Your task to perform on an android device: Clear the shopping cart on costco.com. Image 0: 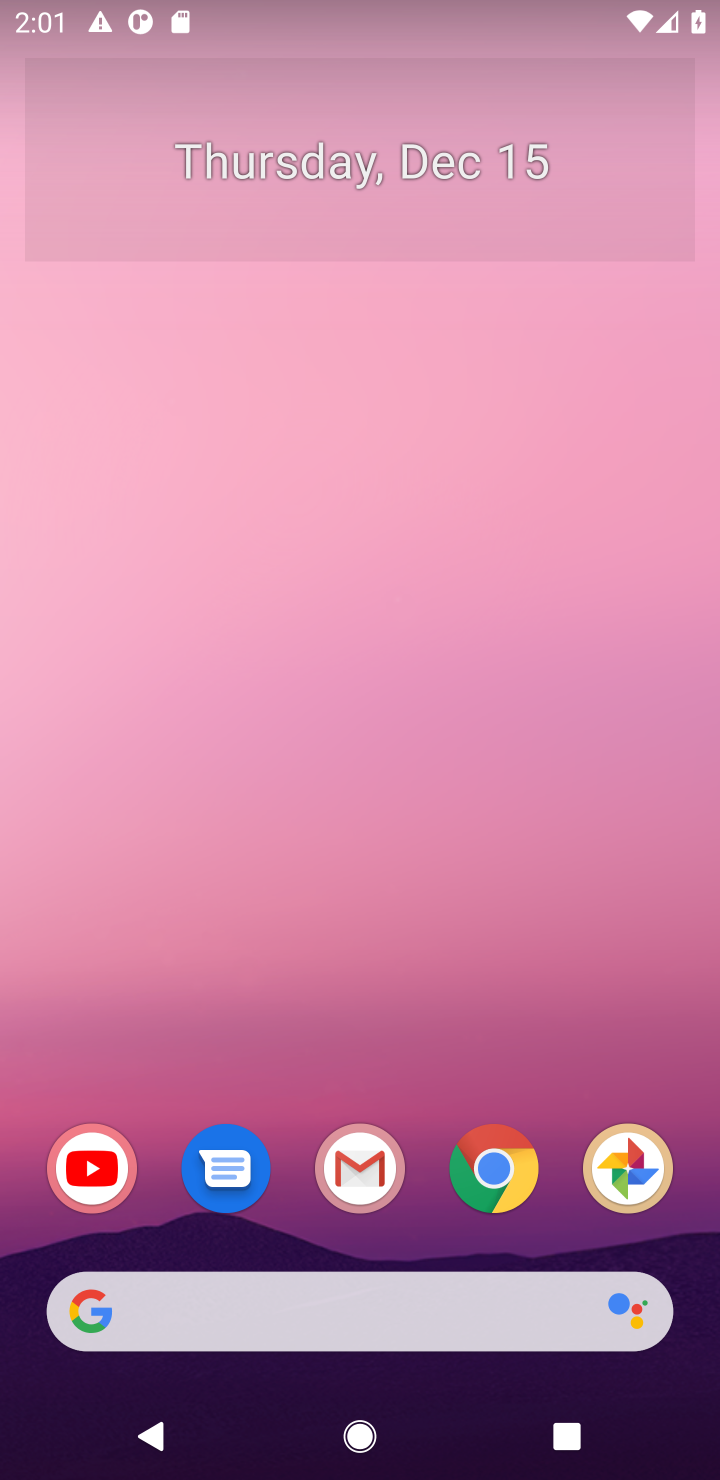
Step 0: click (510, 1160)
Your task to perform on an android device: Clear the shopping cart on costco.com. Image 1: 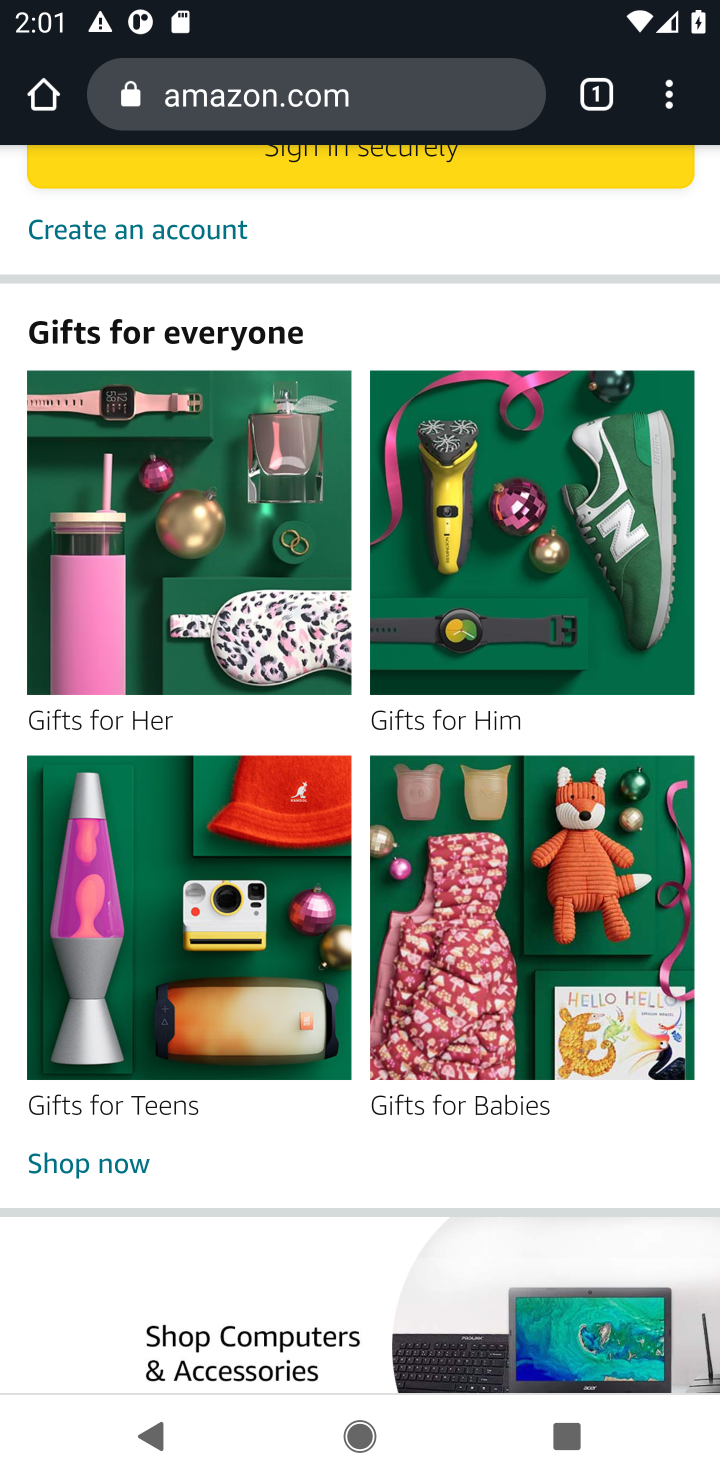
Step 1: click (407, 83)
Your task to perform on an android device: Clear the shopping cart on costco.com. Image 2: 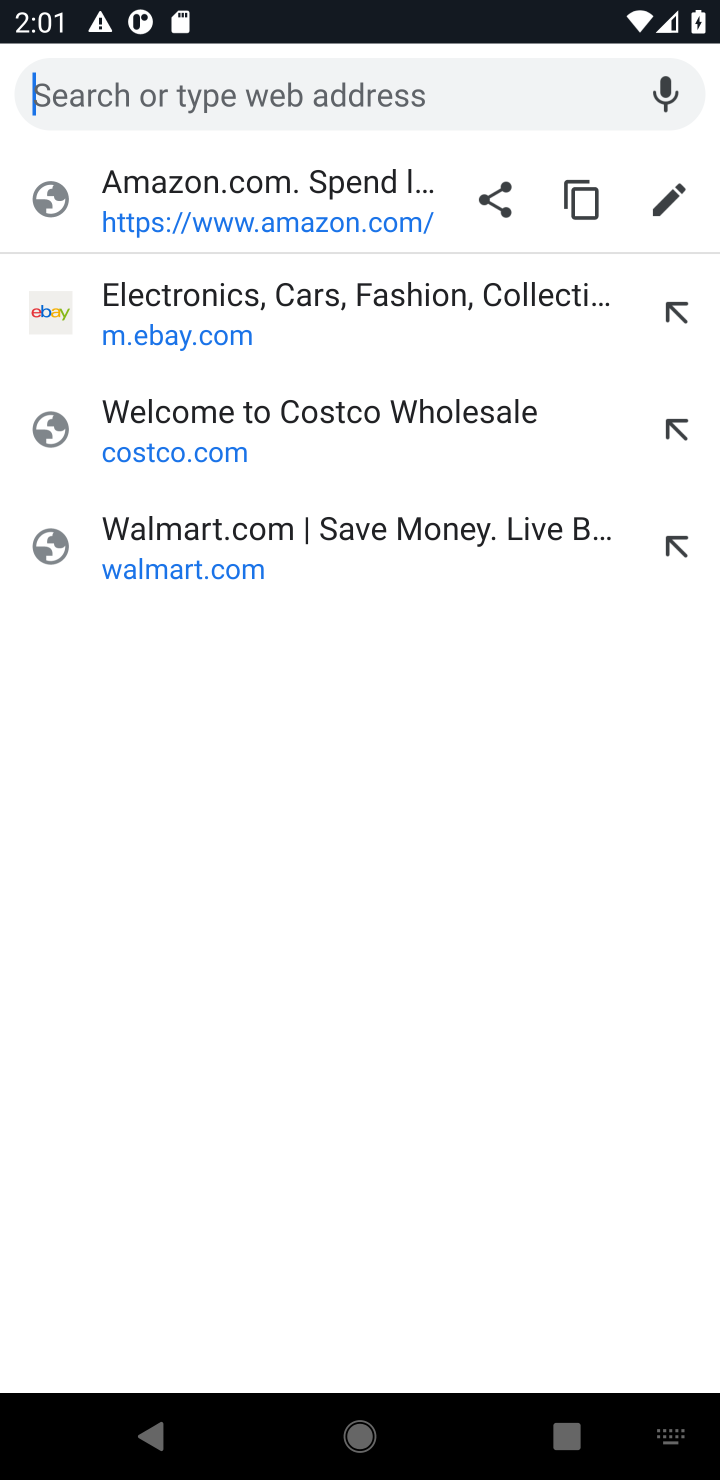
Step 2: click (230, 411)
Your task to perform on an android device: Clear the shopping cart on costco.com. Image 3: 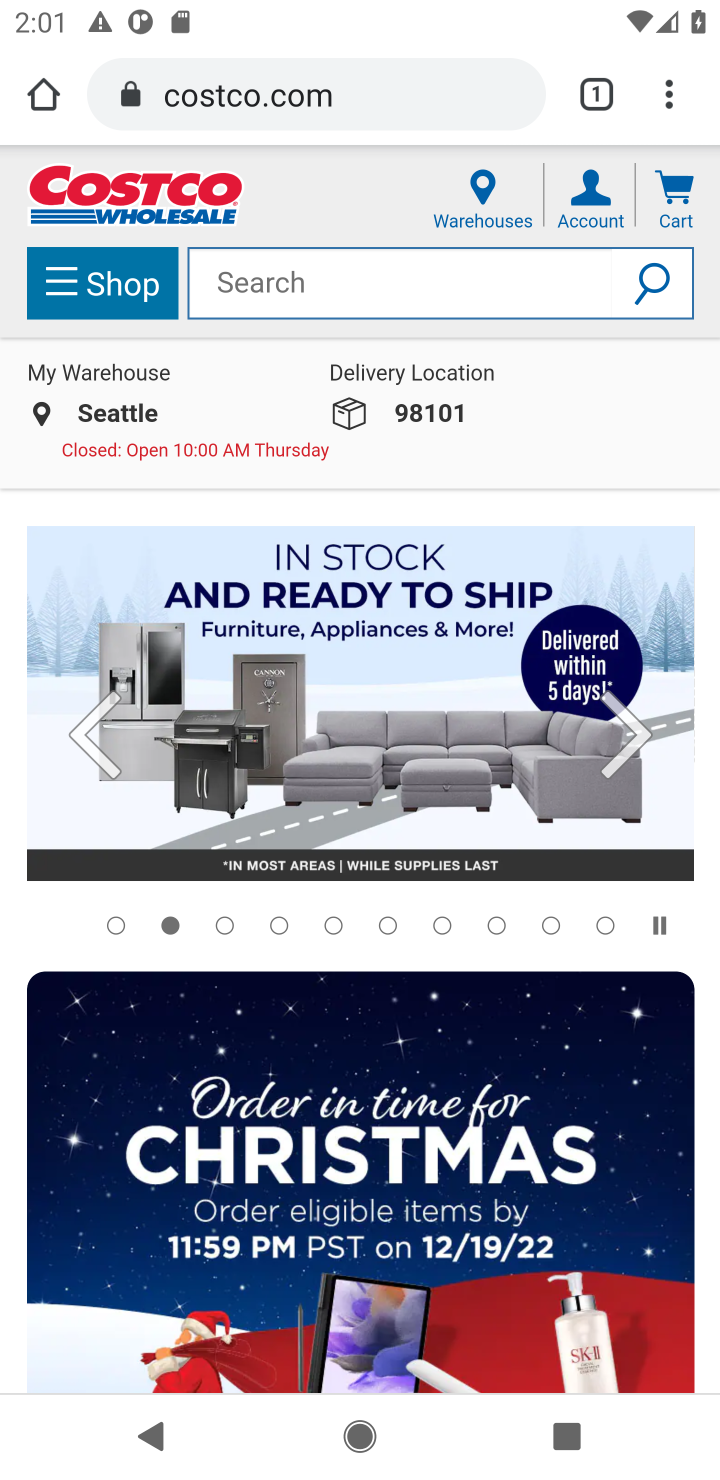
Step 3: click (680, 190)
Your task to perform on an android device: Clear the shopping cart on costco.com. Image 4: 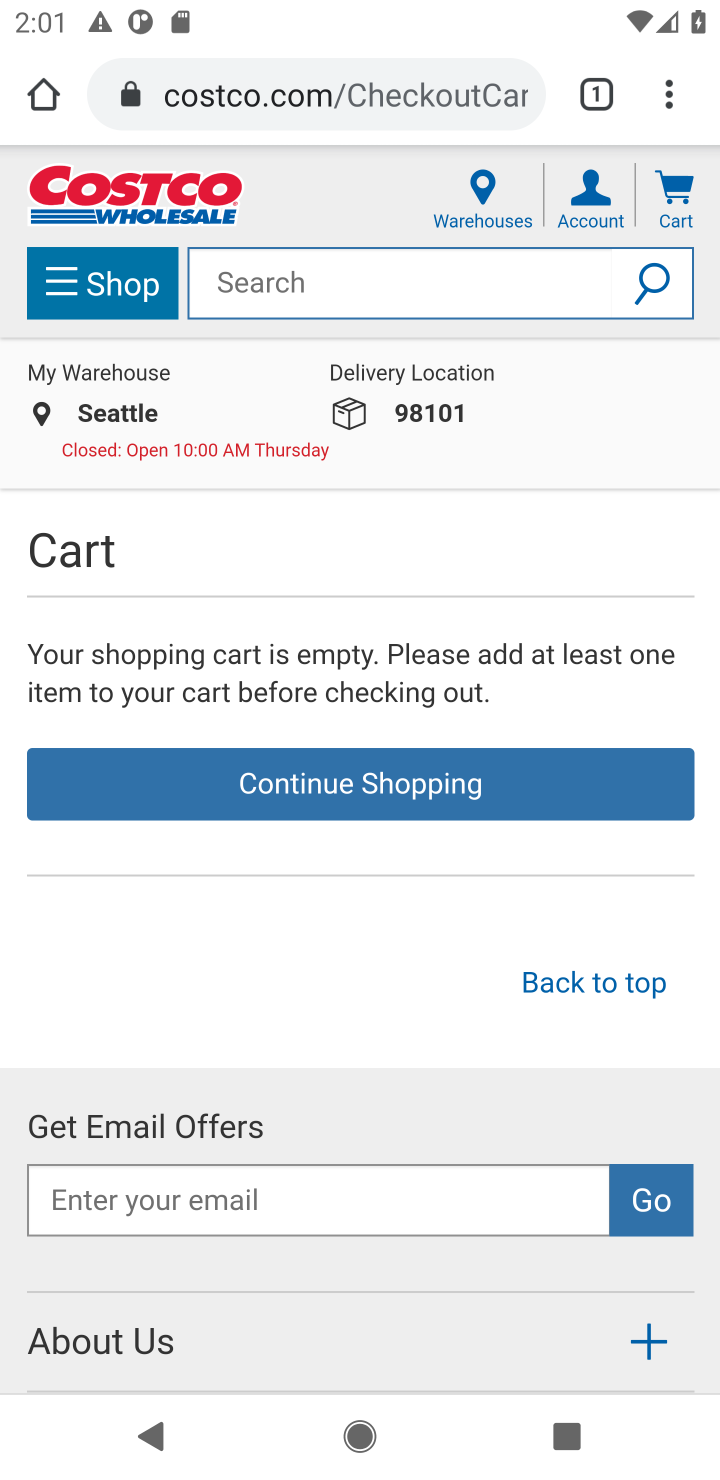
Step 4: task complete